Your task to perform on an android device: turn on the 12-hour format for clock Image 0: 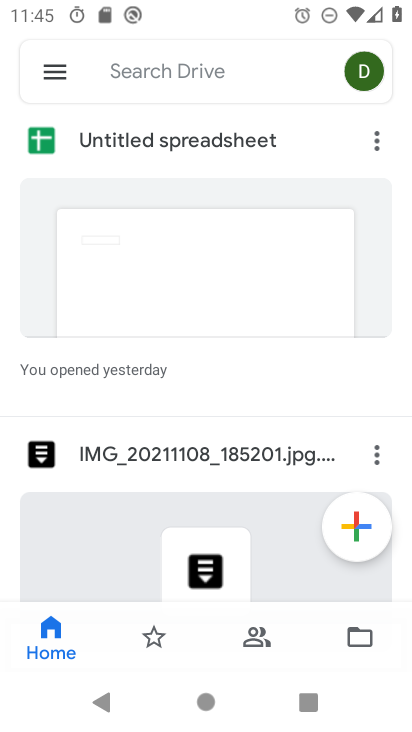
Step 0: press home button
Your task to perform on an android device: turn on the 12-hour format for clock Image 1: 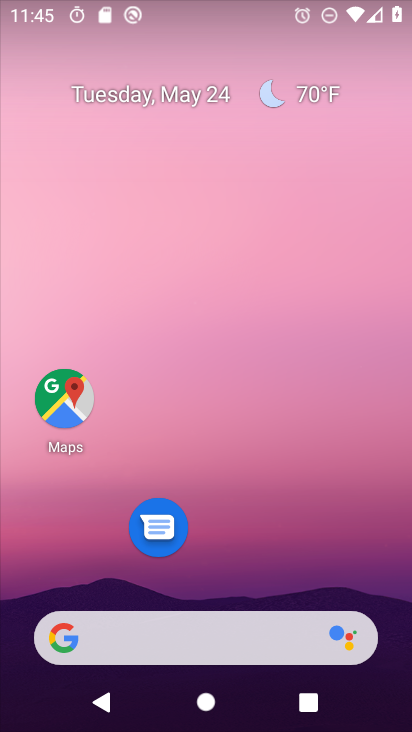
Step 1: drag from (256, 452) to (284, 95)
Your task to perform on an android device: turn on the 12-hour format for clock Image 2: 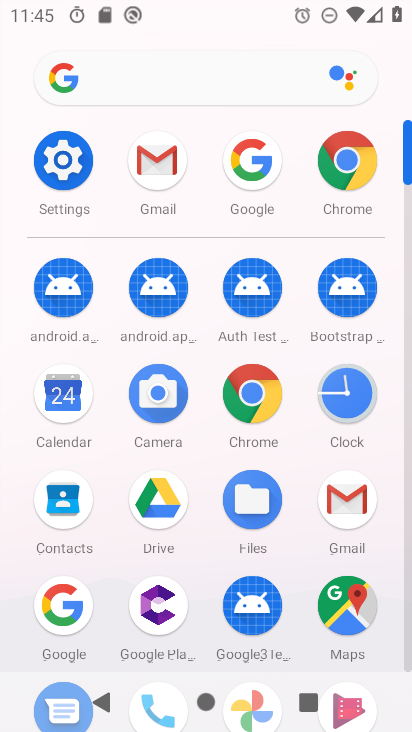
Step 2: click (349, 393)
Your task to perform on an android device: turn on the 12-hour format for clock Image 3: 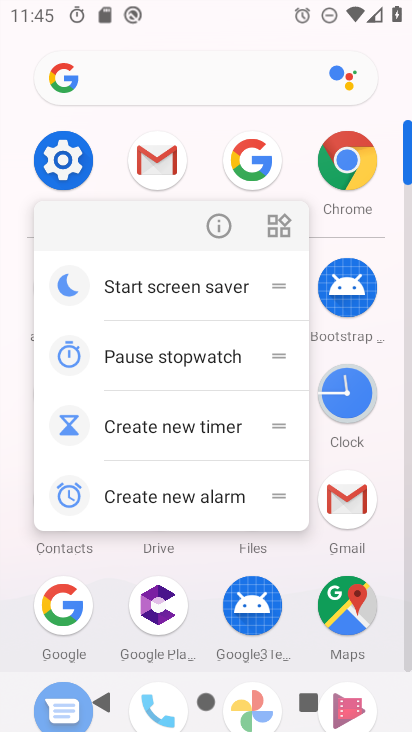
Step 3: click (341, 403)
Your task to perform on an android device: turn on the 12-hour format for clock Image 4: 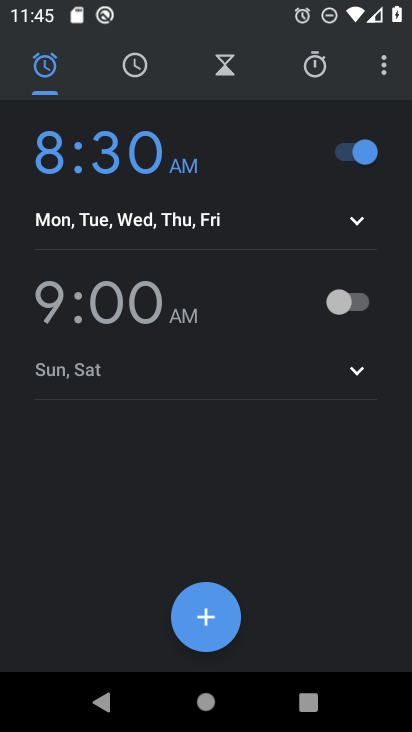
Step 4: click (377, 68)
Your task to perform on an android device: turn on the 12-hour format for clock Image 5: 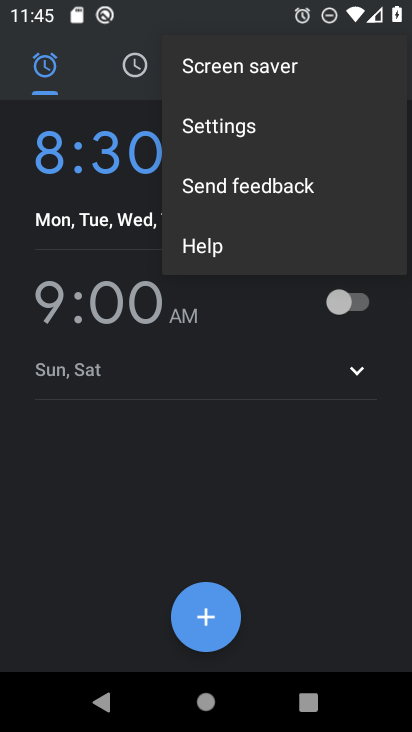
Step 5: click (270, 132)
Your task to perform on an android device: turn on the 12-hour format for clock Image 6: 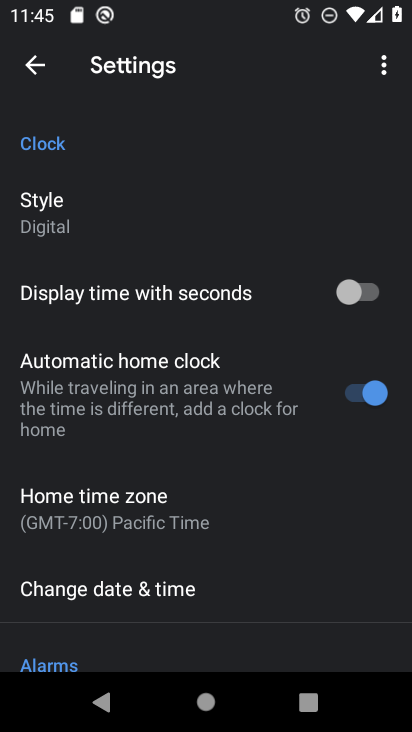
Step 6: click (133, 594)
Your task to perform on an android device: turn on the 12-hour format for clock Image 7: 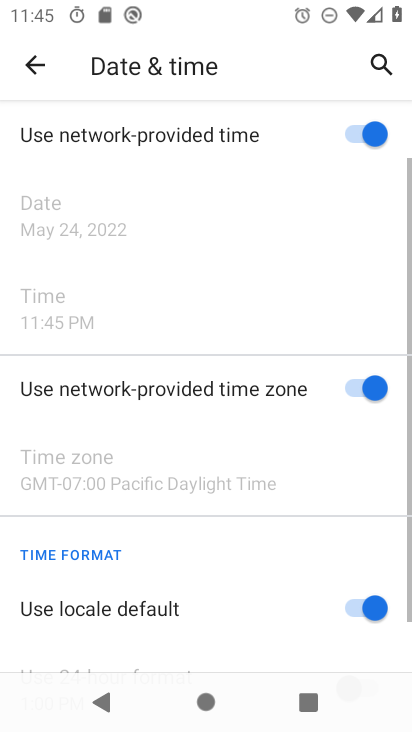
Step 7: task complete